Your task to perform on an android device: Open wifi settings Image 0: 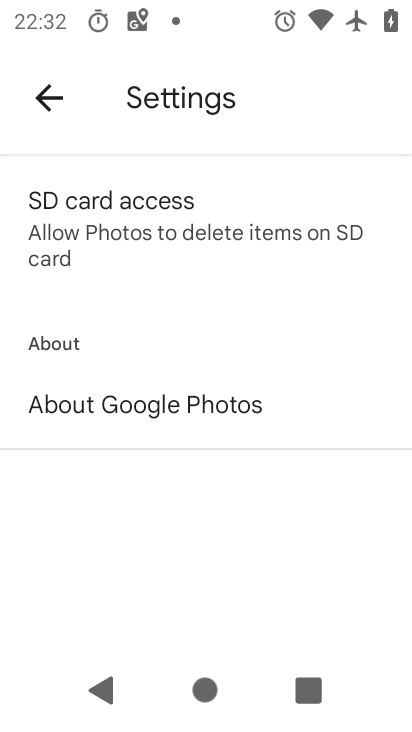
Step 0: press home button
Your task to perform on an android device: Open wifi settings Image 1: 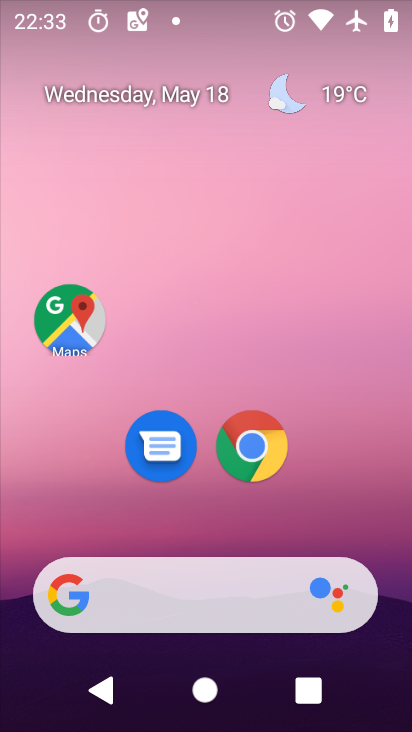
Step 1: drag from (197, 586) to (341, 103)
Your task to perform on an android device: Open wifi settings Image 2: 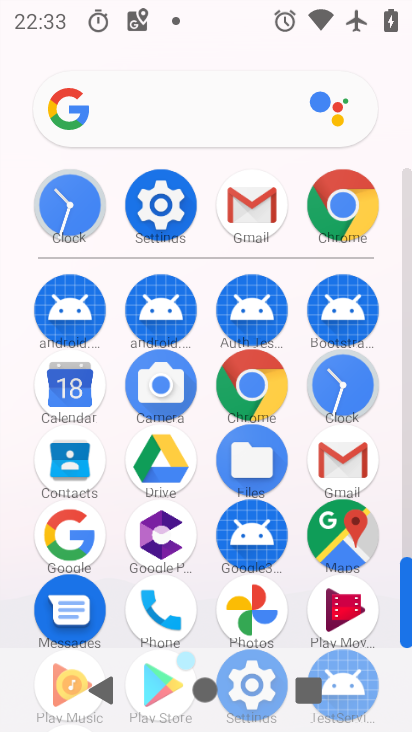
Step 2: click (168, 206)
Your task to perform on an android device: Open wifi settings Image 3: 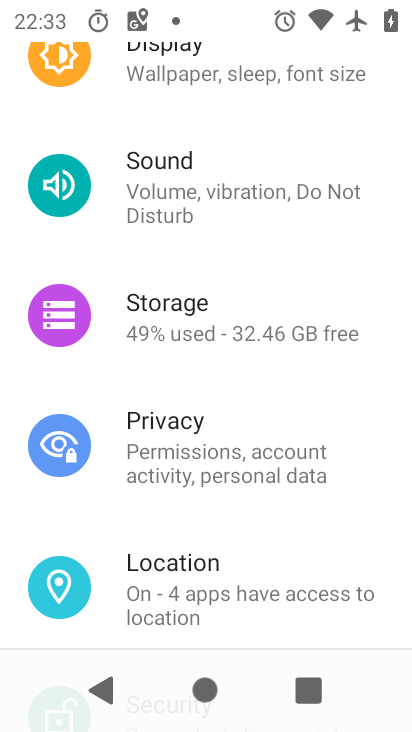
Step 3: drag from (313, 139) to (208, 642)
Your task to perform on an android device: Open wifi settings Image 4: 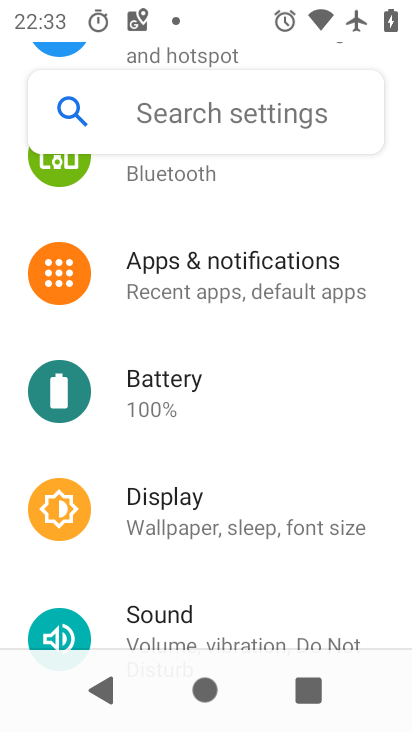
Step 4: drag from (314, 220) to (259, 592)
Your task to perform on an android device: Open wifi settings Image 5: 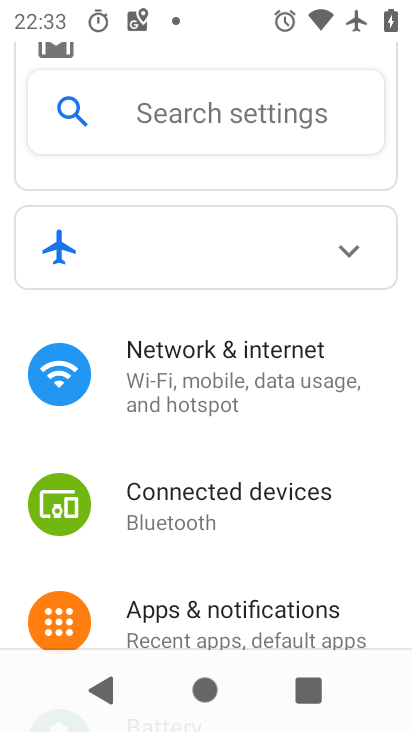
Step 5: click (249, 365)
Your task to perform on an android device: Open wifi settings Image 6: 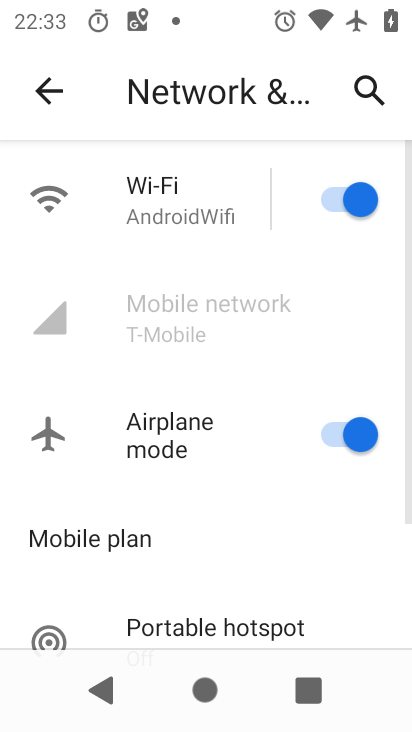
Step 6: click (178, 214)
Your task to perform on an android device: Open wifi settings Image 7: 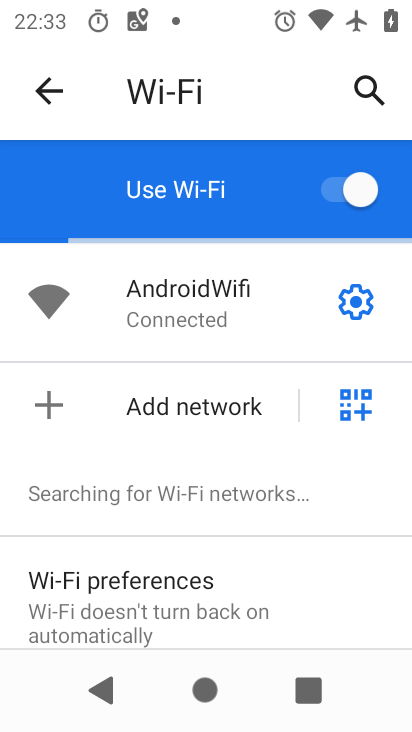
Step 7: task complete